Your task to perform on an android device: See recent photos Image 0: 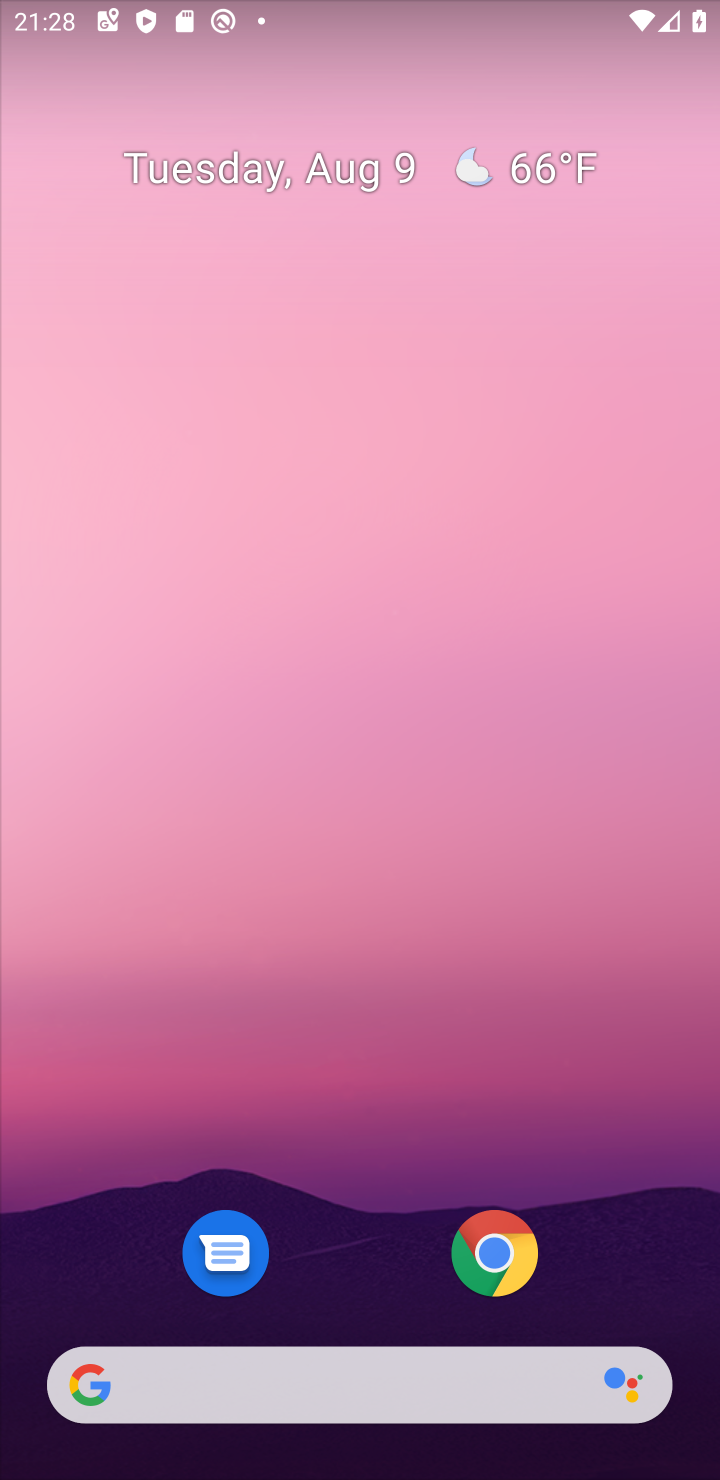
Step 0: drag from (382, 1131) to (455, 322)
Your task to perform on an android device: See recent photos Image 1: 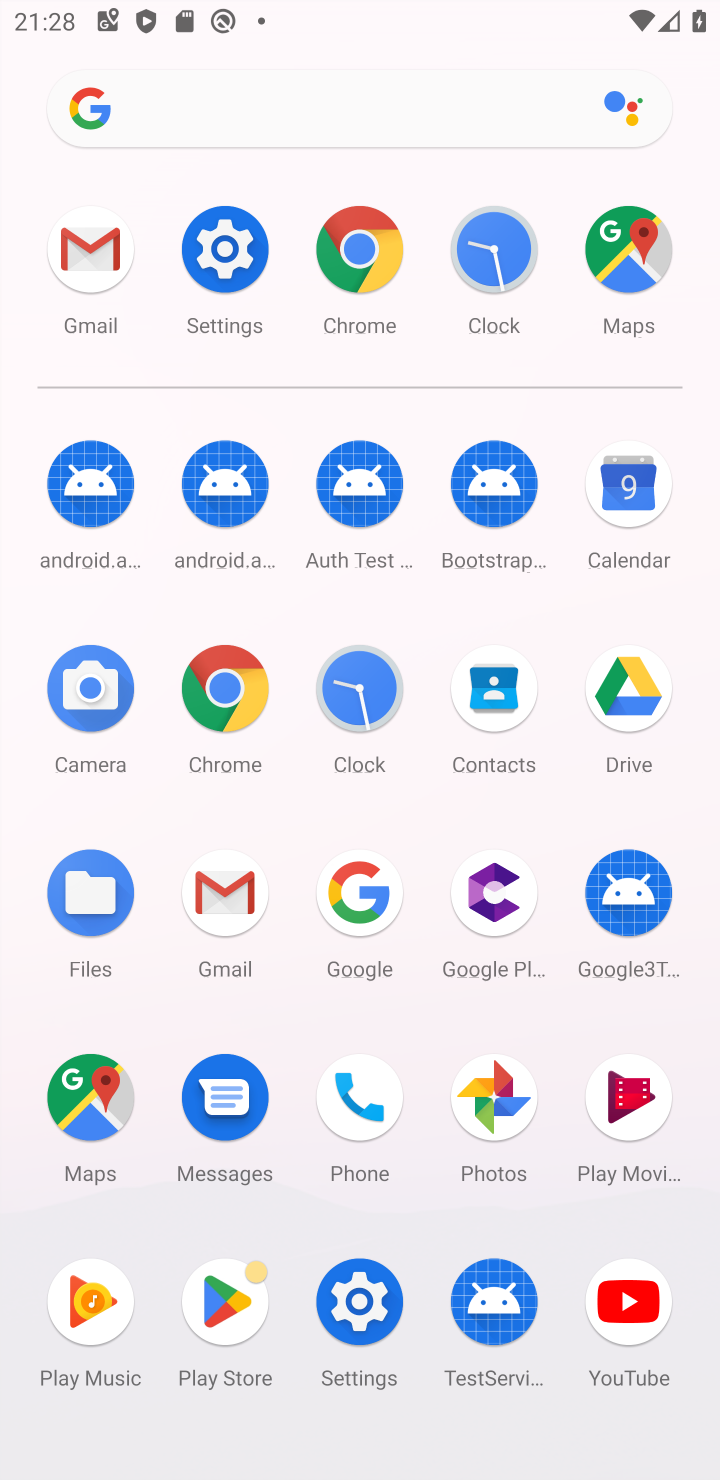
Step 1: click (507, 1086)
Your task to perform on an android device: See recent photos Image 2: 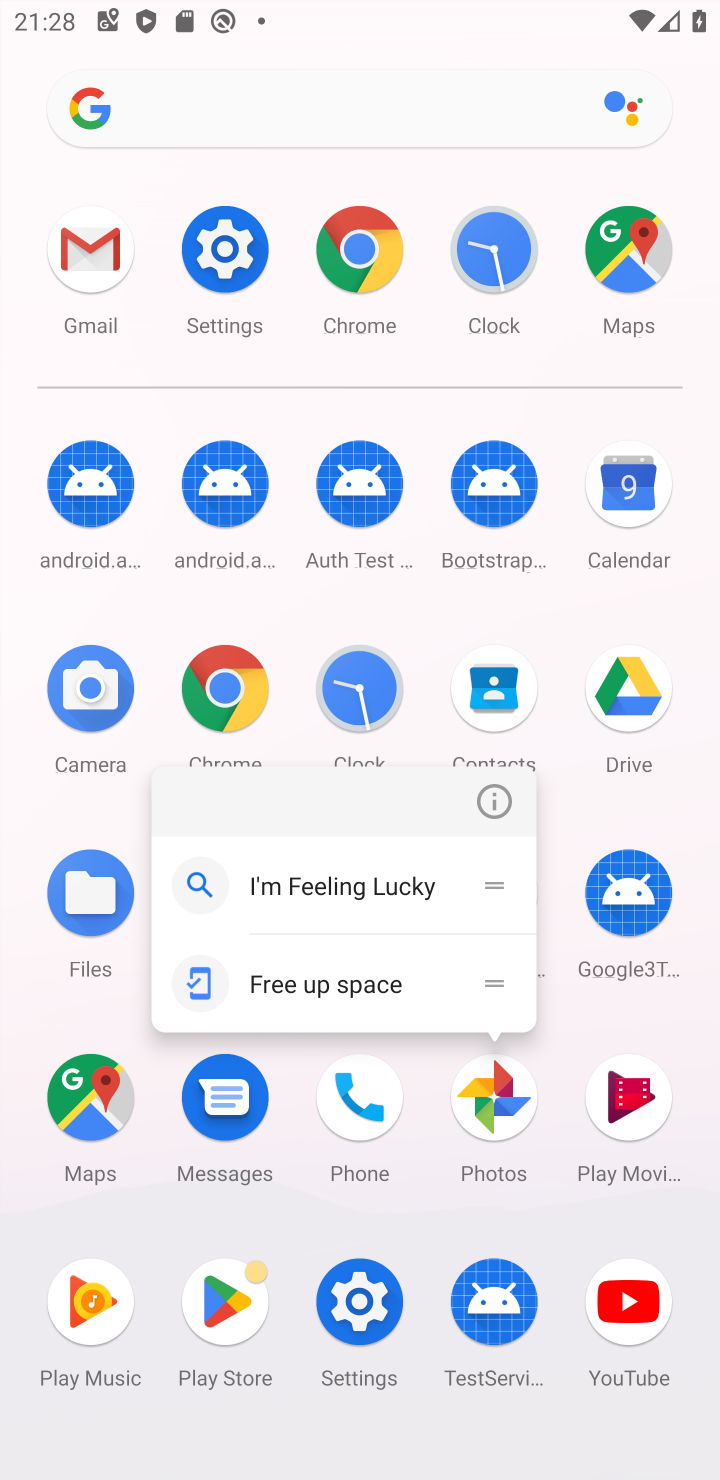
Step 2: click (506, 1106)
Your task to perform on an android device: See recent photos Image 3: 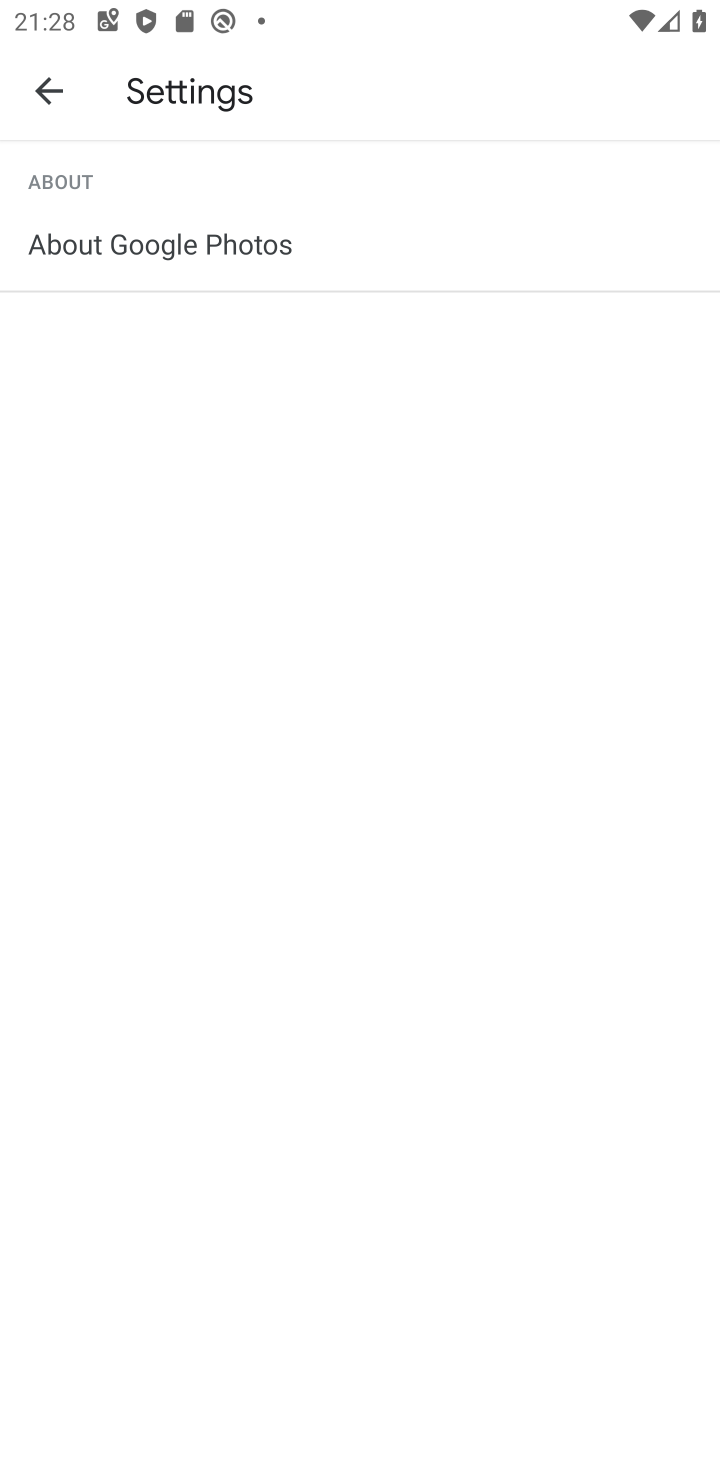
Step 3: click (35, 81)
Your task to perform on an android device: See recent photos Image 4: 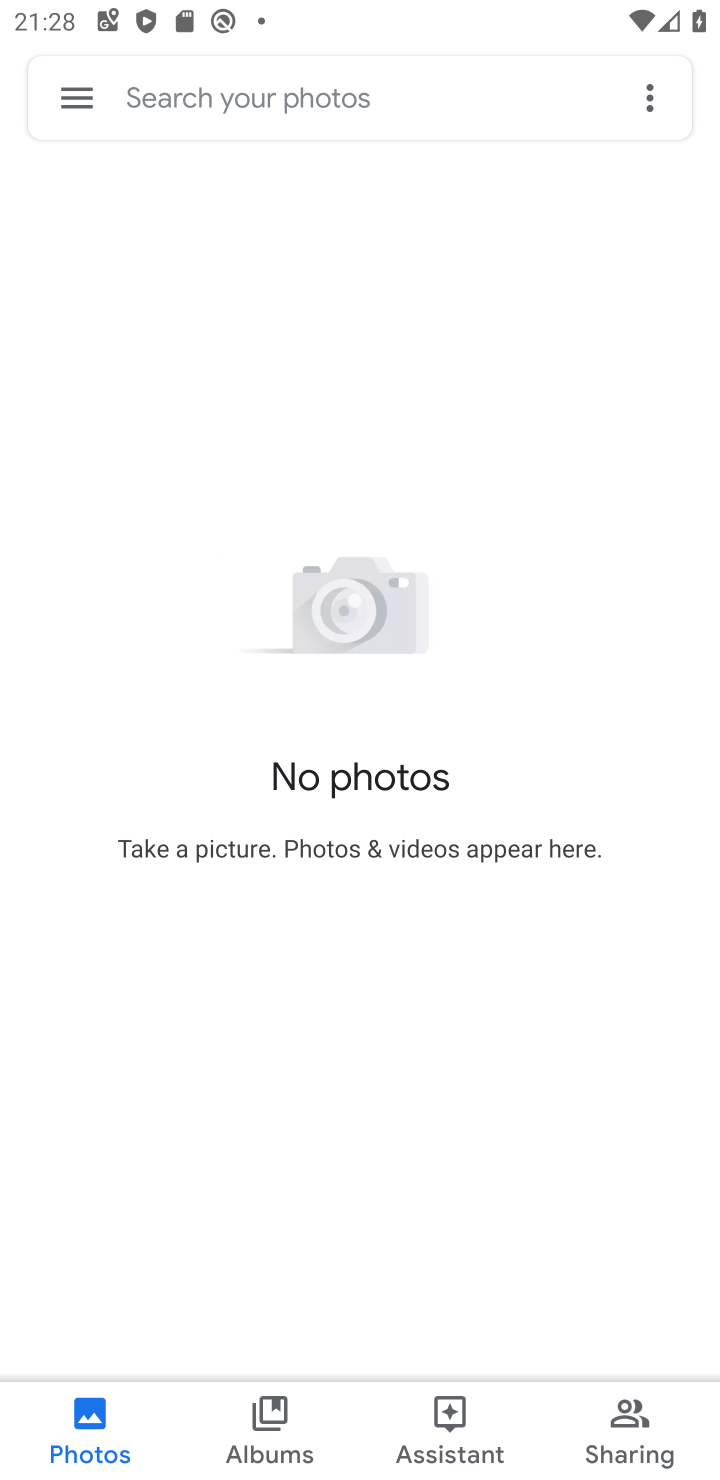
Step 4: task complete